Your task to perform on an android device: Open Yahoo.com Image 0: 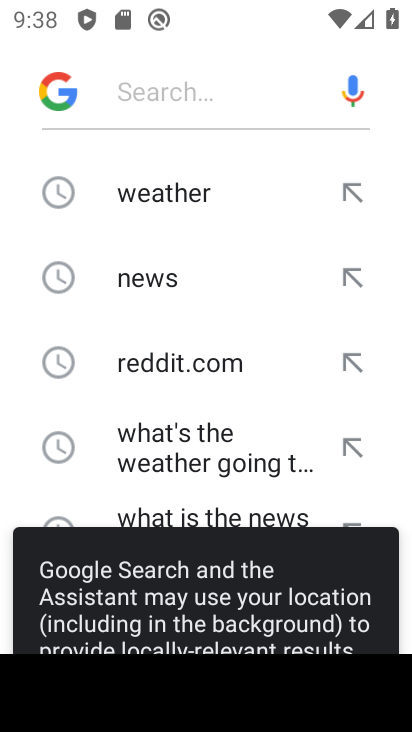
Step 0: press home button
Your task to perform on an android device: Open Yahoo.com Image 1: 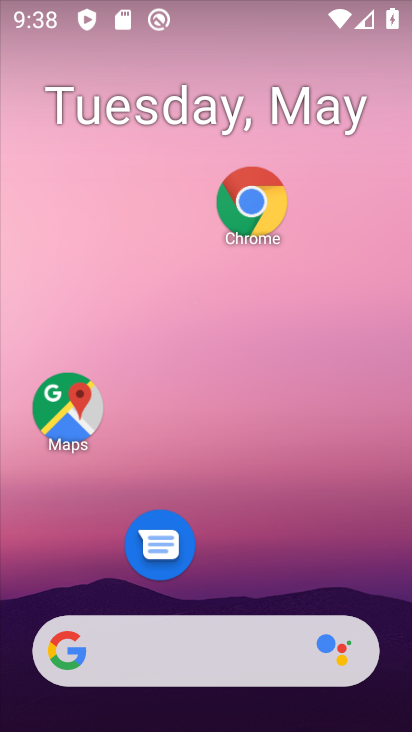
Step 1: click (253, 193)
Your task to perform on an android device: Open Yahoo.com Image 2: 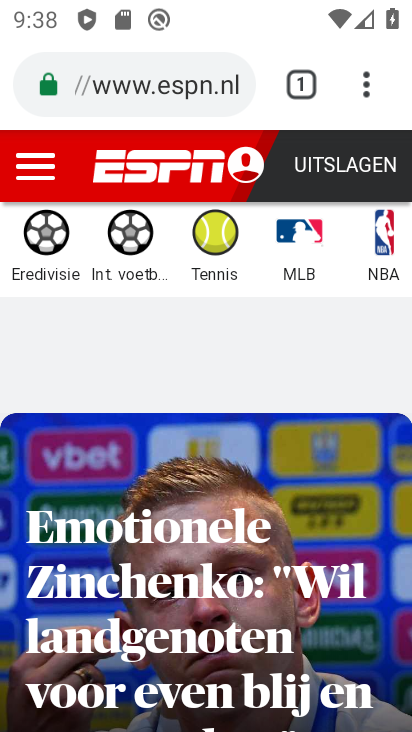
Step 2: click (202, 67)
Your task to perform on an android device: Open Yahoo.com Image 3: 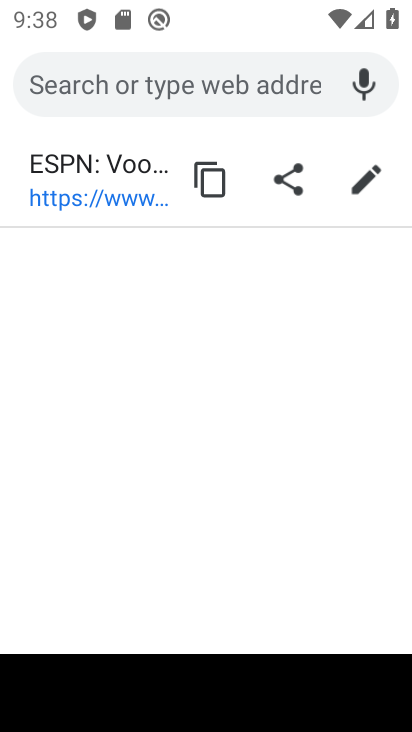
Step 3: type "Yahoo.com"
Your task to perform on an android device: Open Yahoo.com Image 4: 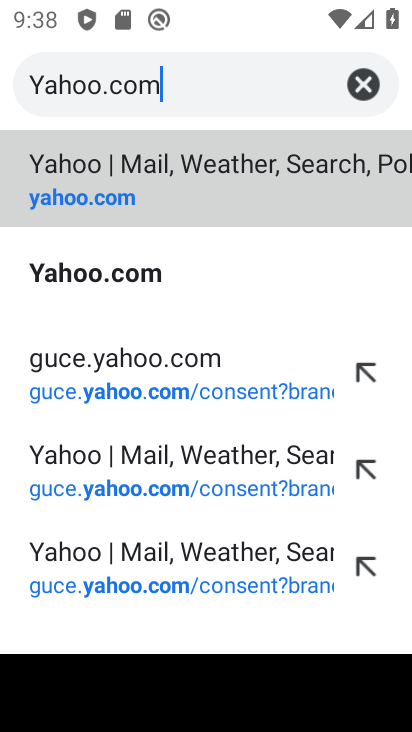
Step 4: click (95, 196)
Your task to perform on an android device: Open Yahoo.com Image 5: 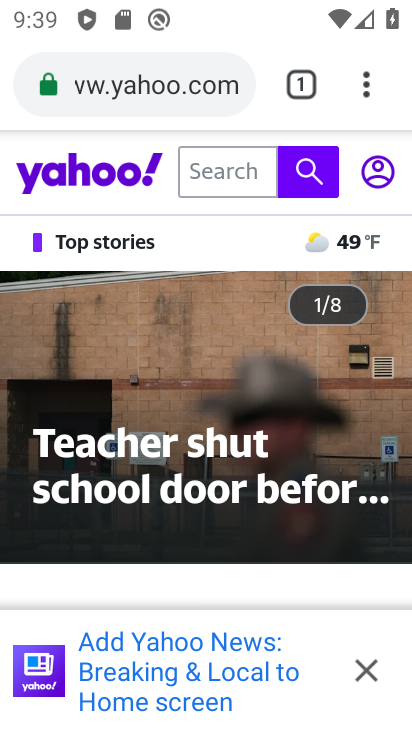
Step 5: task complete